Your task to perform on an android device: Is it going to rain today? Image 0: 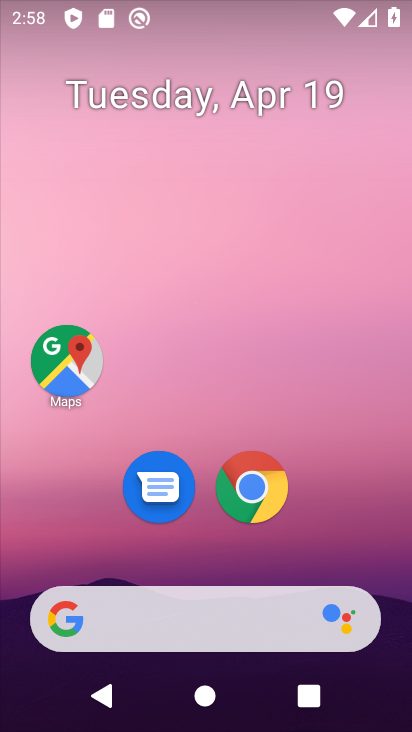
Step 0: drag from (216, 321) to (242, 90)
Your task to perform on an android device: Is it going to rain today? Image 1: 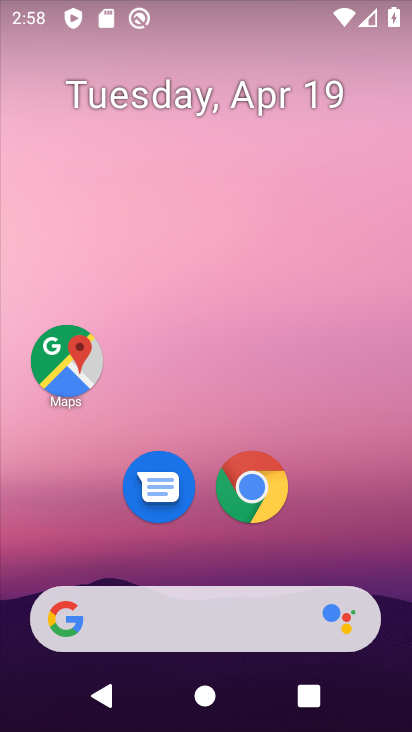
Step 1: drag from (149, 536) to (210, 58)
Your task to perform on an android device: Is it going to rain today? Image 2: 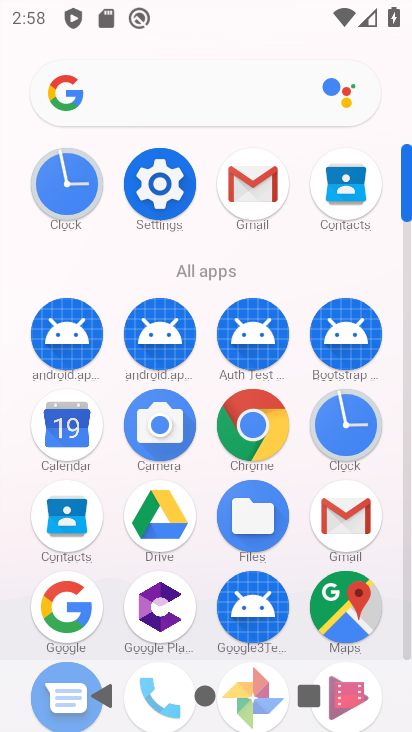
Step 2: press home button
Your task to perform on an android device: Is it going to rain today? Image 3: 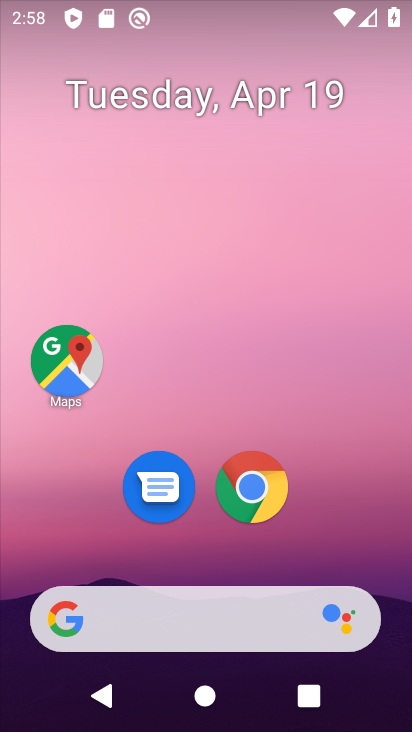
Step 3: click (179, 629)
Your task to perform on an android device: Is it going to rain today? Image 4: 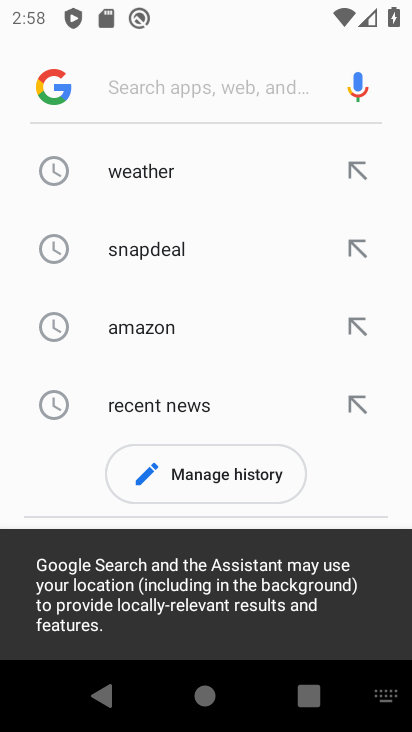
Step 4: click (158, 160)
Your task to perform on an android device: Is it going to rain today? Image 5: 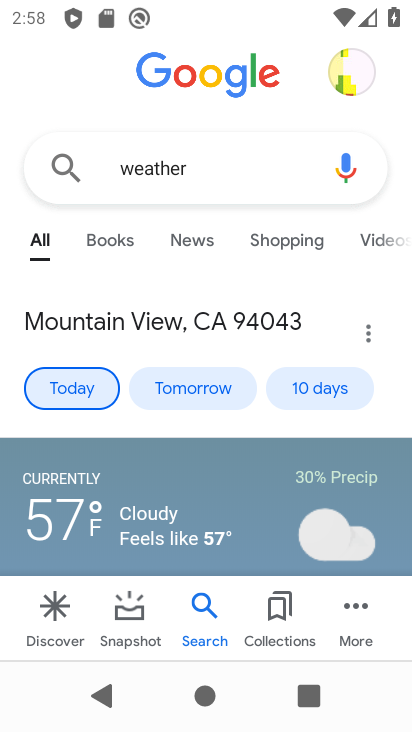
Step 5: task complete